Your task to perform on an android device: open a new tab in the chrome app Image 0: 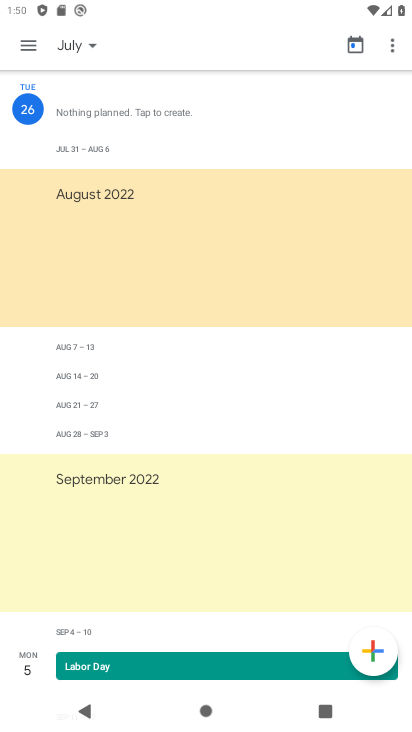
Step 0: press home button
Your task to perform on an android device: open a new tab in the chrome app Image 1: 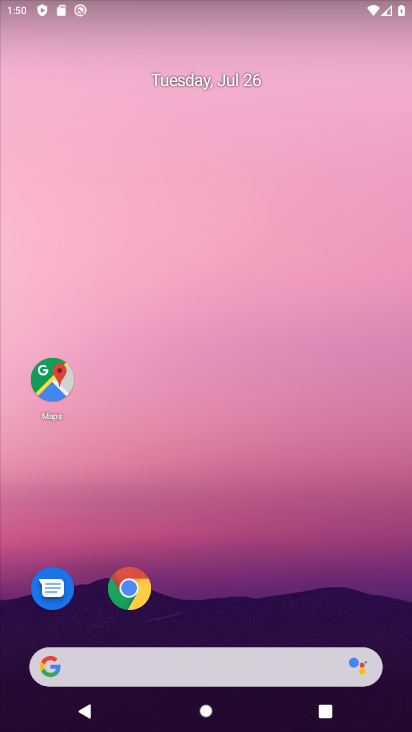
Step 1: click (120, 585)
Your task to perform on an android device: open a new tab in the chrome app Image 2: 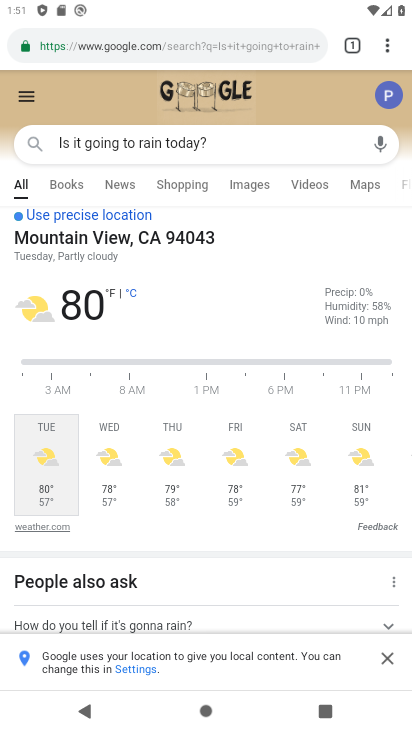
Step 2: click (388, 49)
Your task to perform on an android device: open a new tab in the chrome app Image 3: 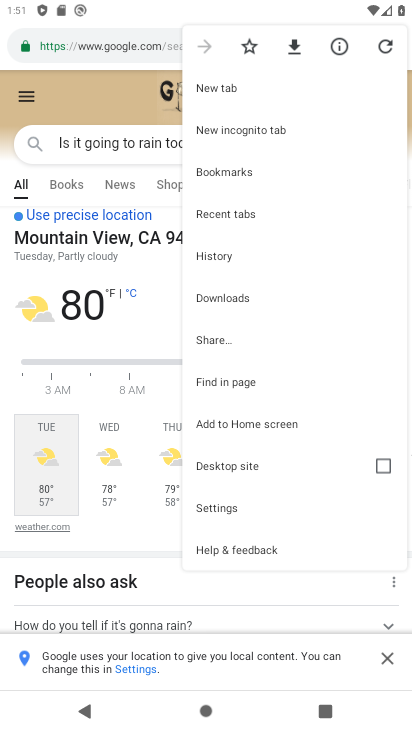
Step 3: click (238, 84)
Your task to perform on an android device: open a new tab in the chrome app Image 4: 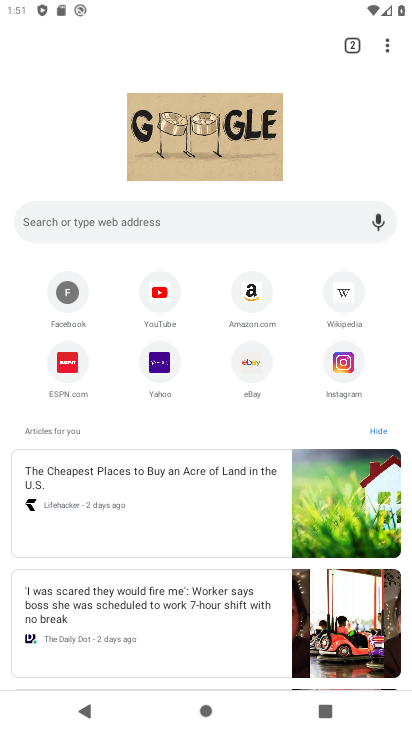
Step 4: task complete